Your task to perform on an android device: manage bookmarks in the chrome app Image 0: 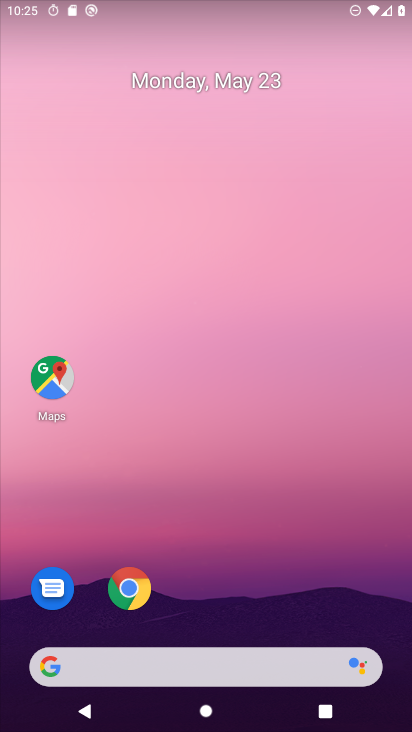
Step 0: click (142, 580)
Your task to perform on an android device: manage bookmarks in the chrome app Image 1: 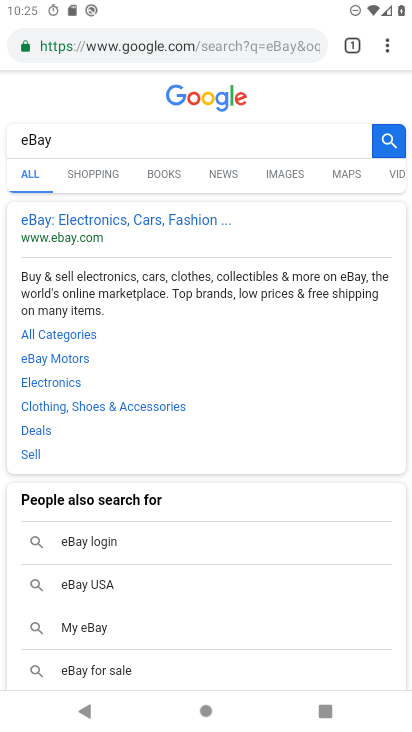
Step 1: click (378, 41)
Your task to perform on an android device: manage bookmarks in the chrome app Image 2: 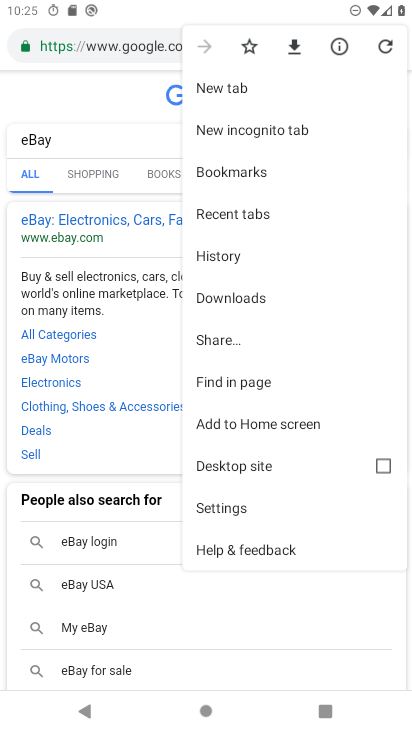
Step 2: click (220, 499)
Your task to perform on an android device: manage bookmarks in the chrome app Image 3: 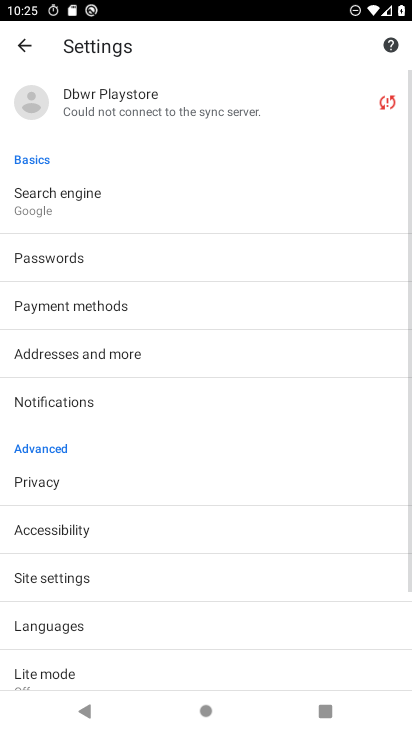
Step 3: press back button
Your task to perform on an android device: manage bookmarks in the chrome app Image 4: 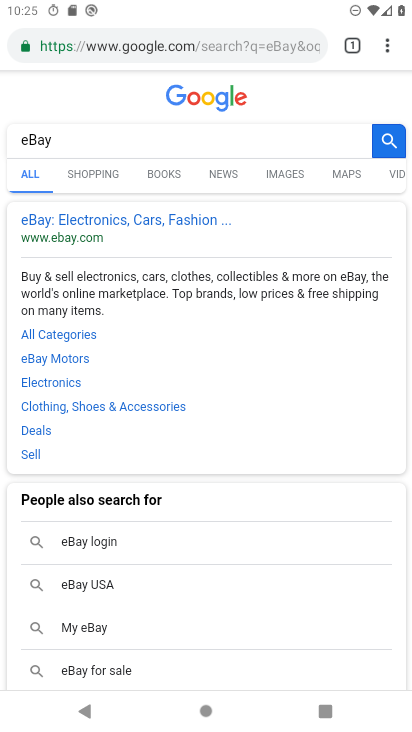
Step 4: click (384, 38)
Your task to perform on an android device: manage bookmarks in the chrome app Image 5: 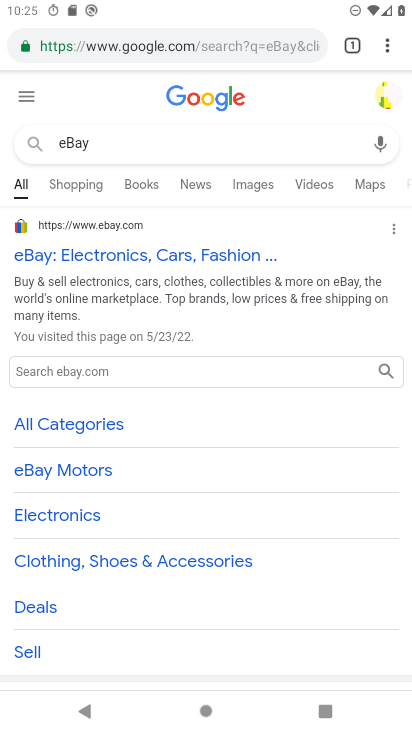
Step 5: click (387, 45)
Your task to perform on an android device: manage bookmarks in the chrome app Image 6: 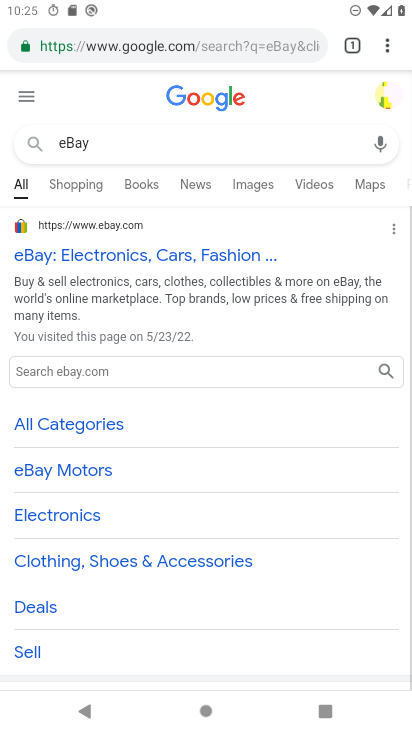
Step 6: click (385, 39)
Your task to perform on an android device: manage bookmarks in the chrome app Image 7: 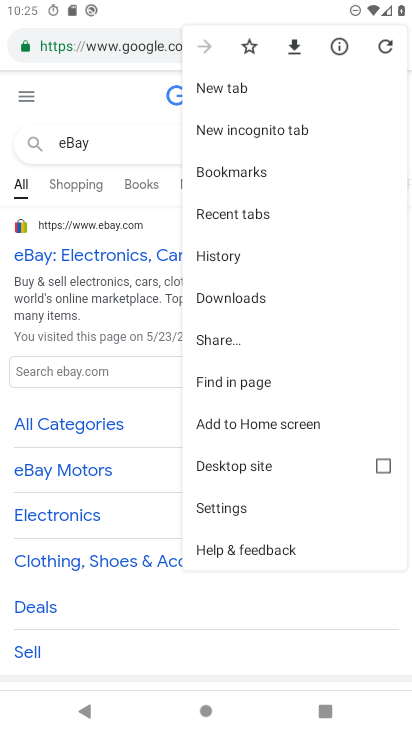
Step 7: click (211, 167)
Your task to perform on an android device: manage bookmarks in the chrome app Image 8: 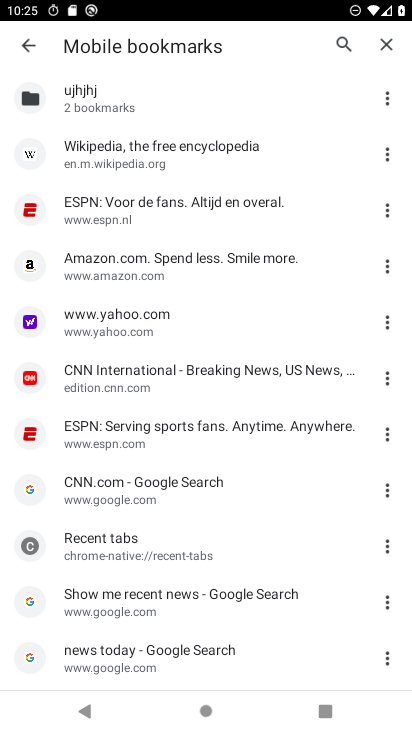
Step 8: click (388, 538)
Your task to perform on an android device: manage bookmarks in the chrome app Image 9: 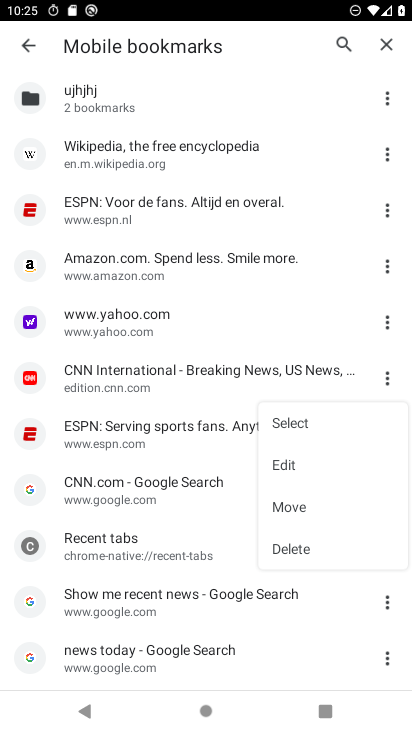
Step 9: click (306, 545)
Your task to perform on an android device: manage bookmarks in the chrome app Image 10: 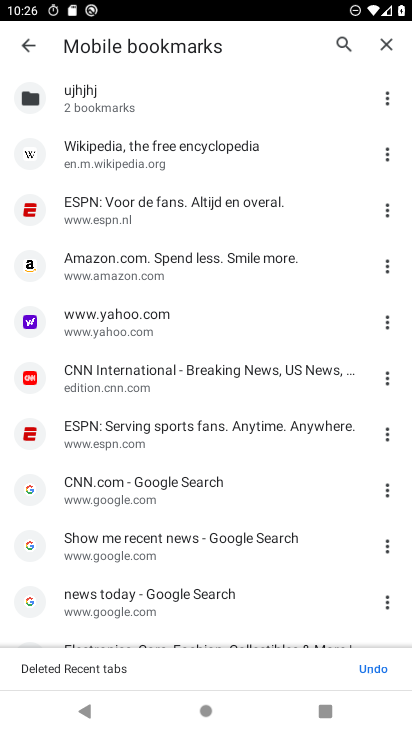
Step 10: task complete